Your task to perform on an android device: turn off improve location accuracy Image 0: 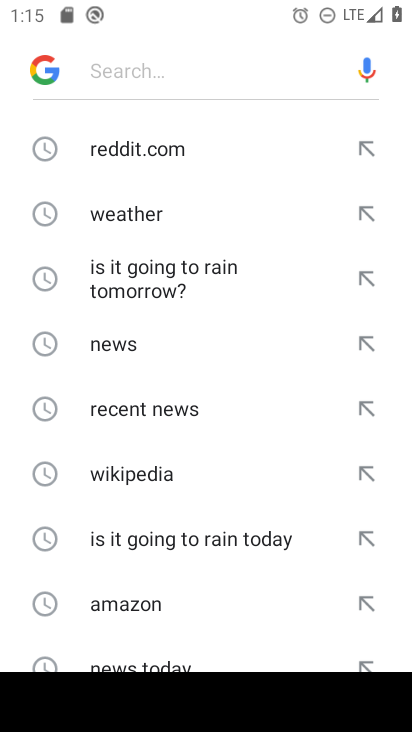
Step 0: press home button
Your task to perform on an android device: turn off improve location accuracy Image 1: 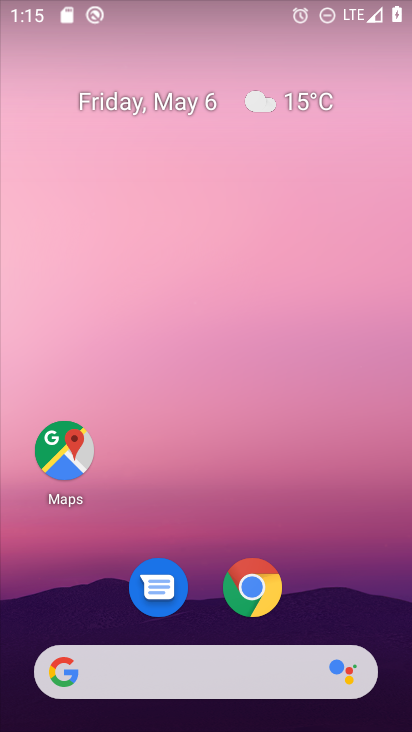
Step 1: drag from (331, 572) to (252, 6)
Your task to perform on an android device: turn off improve location accuracy Image 2: 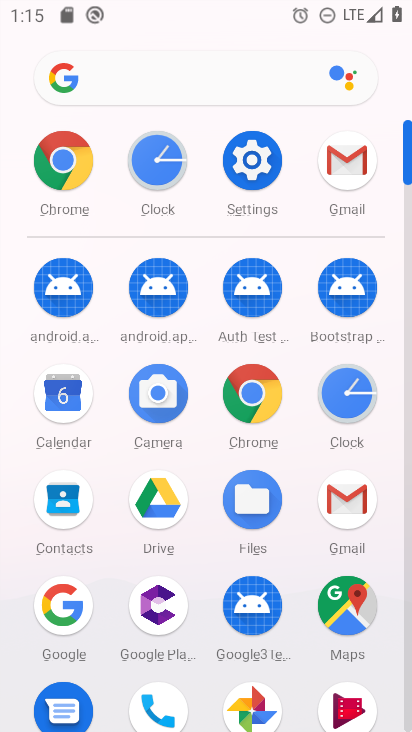
Step 2: click (246, 157)
Your task to perform on an android device: turn off improve location accuracy Image 3: 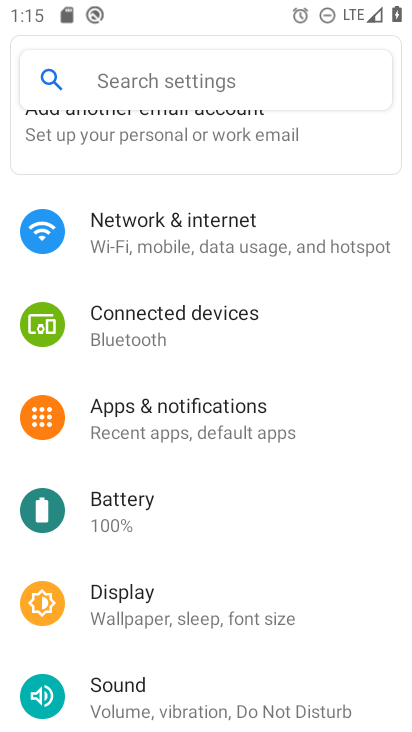
Step 3: drag from (242, 582) to (251, 141)
Your task to perform on an android device: turn off improve location accuracy Image 4: 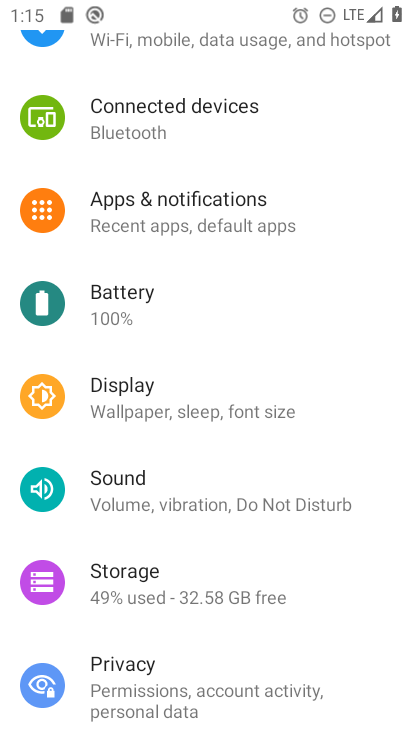
Step 4: drag from (221, 624) to (245, 172)
Your task to perform on an android device: turn off improve location accuracy Image 5: 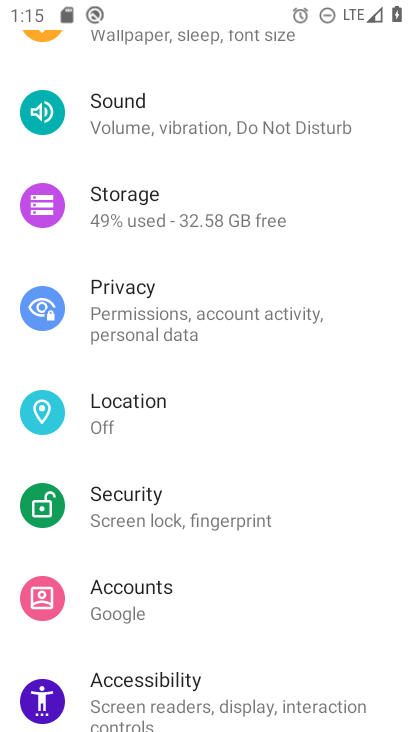
Step 5: click (165, 429)
Your task to perform on an android device: turn off improve location accuracy Image 6: 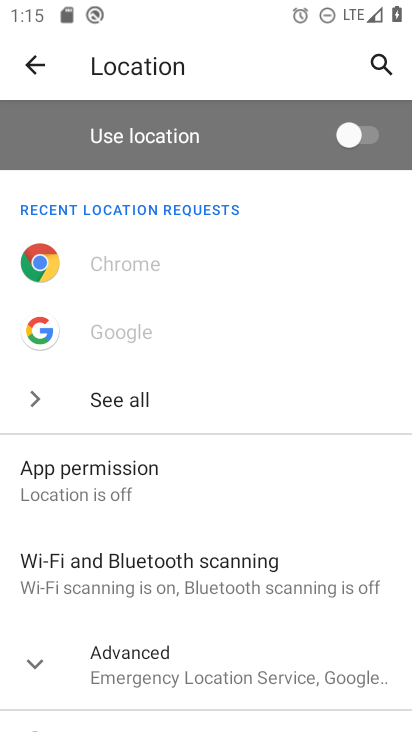
Step 6: click (213, 672)
Your task to perform on an android device: turn off improve location accuracy Image 7: 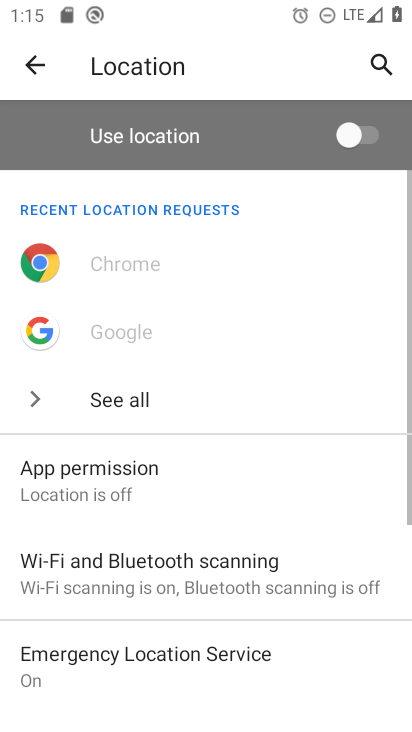
Step 7: drag from (248, 690) to (248, 297)
Your task to perform on an android device: turn off improve location accuracy Image 8: 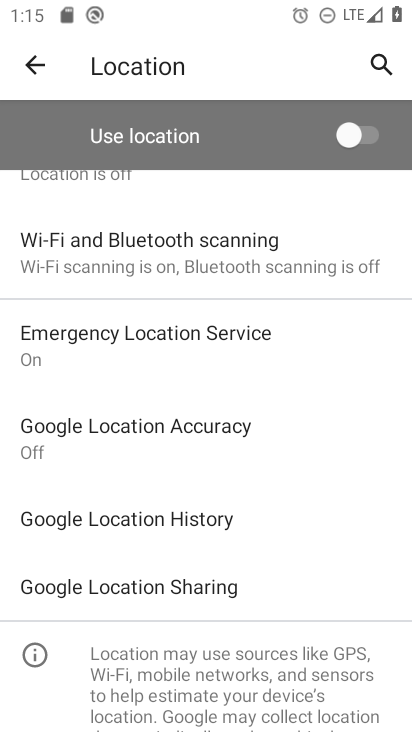
Step 8: click (177, 440)
Your task to perform on an android device: turn off improve location accuracy Image 9: 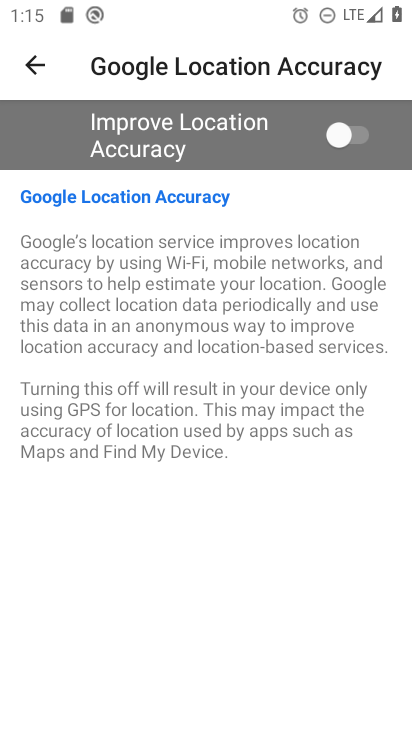
Step 9: task complete